Your task to perform on an android device: Open the Play Movies app and select the watchlist tab. Image 0: 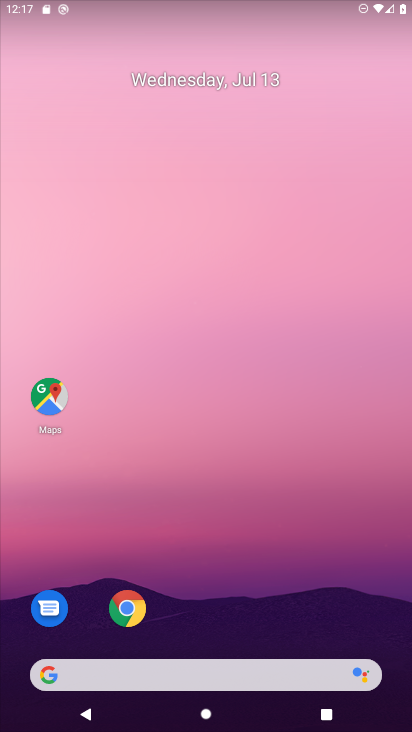
Step 0: drag from (192, 616) to (216, 0)
Your task to perform on an android device: Open the Play Movies app and select the watchlist tab. Image 1: 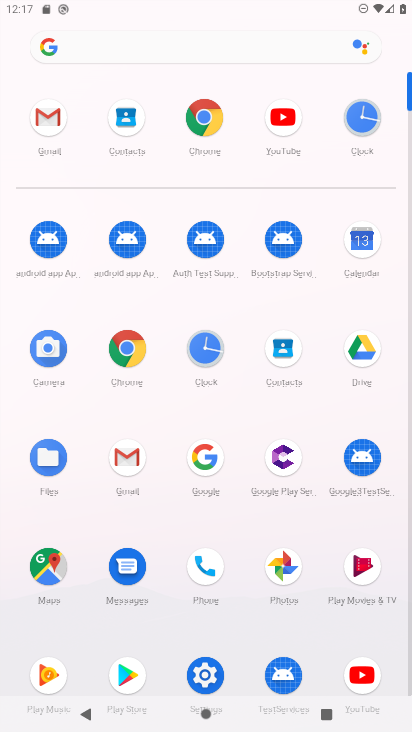
Step 1: click (358, 565)
Your task to perform on an android device: Open the Play Movies app and select the watchlist tab. Image 2: 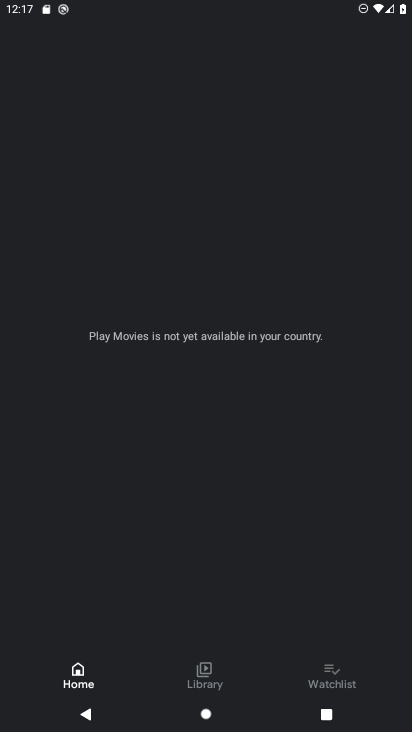
Step 2: click (328, 685)
Your task to perform on an android device: Open the Play Movies app and select the watchlist tab. Image 3: 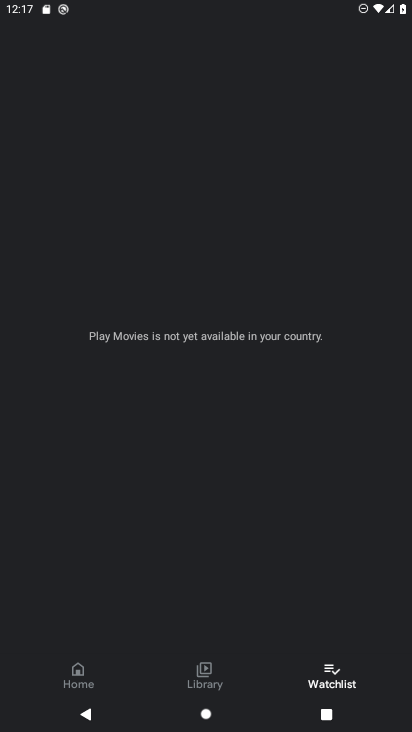
Step 3: task complete